Your task to perform on an android device: Open calendar and show me the fourth week of next month Image 0: 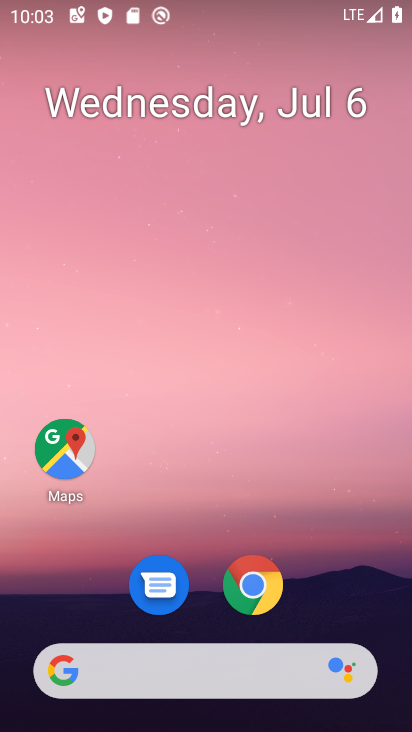
Step 0: drag from (232, 507) to (244, 19)
Your task to perform on an android device: Open calendar and show me the fourth week of next month Image 1: 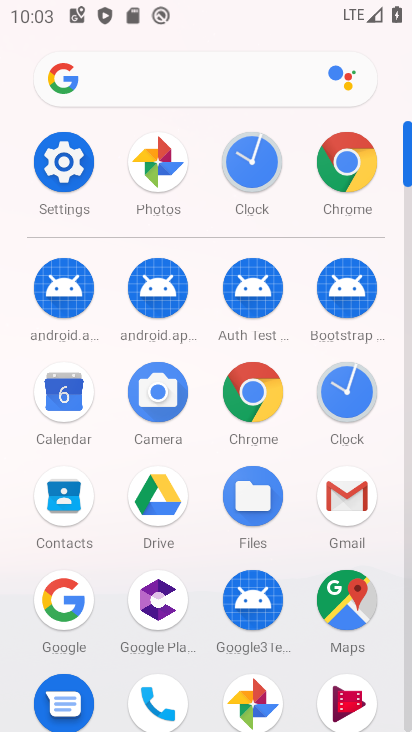
Step 1: click (61, 402)
Your task to perform on an android device: Open calendar and show me the fourth week of next month Image 2: 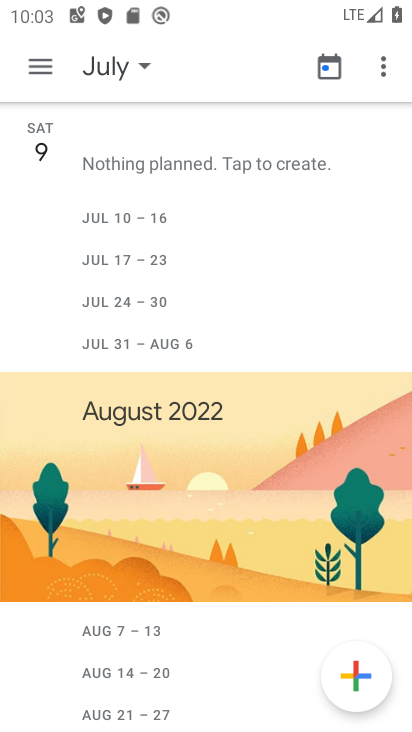
Step 2: click (45, 70)
Your task to perform on an android device: Open calendar and show me the fourth week of next month Image 3: 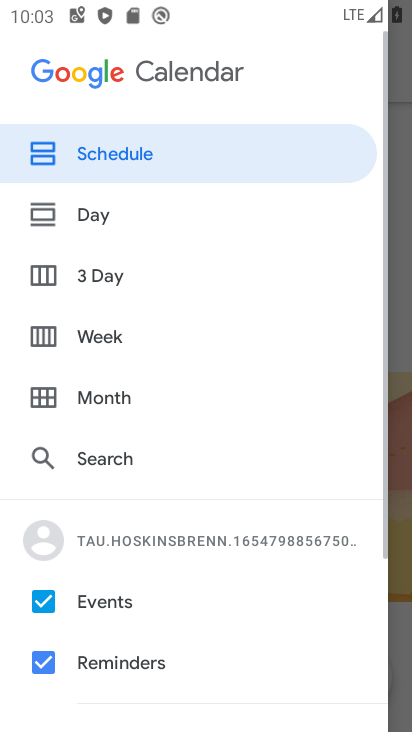
Step 3: click (94, 401)
Your task to perform on an android device: Open calendar and show me the fourth week of next month Image 4: 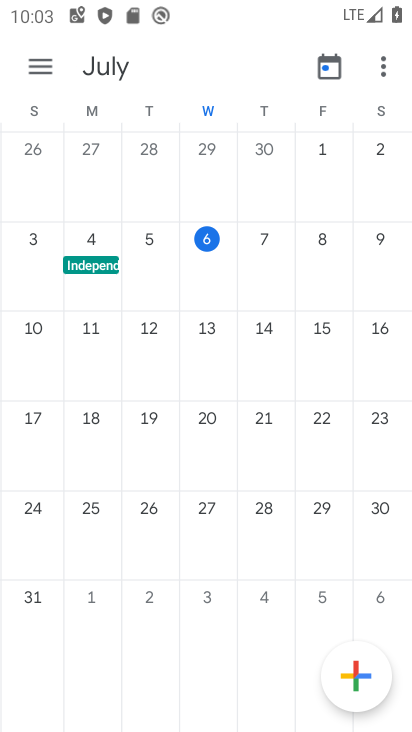
Step 4: drag from (313, 410) to (1, 331)
Your task to perform on an android device: Open calendar and show me the fourth week of next month Image 5: 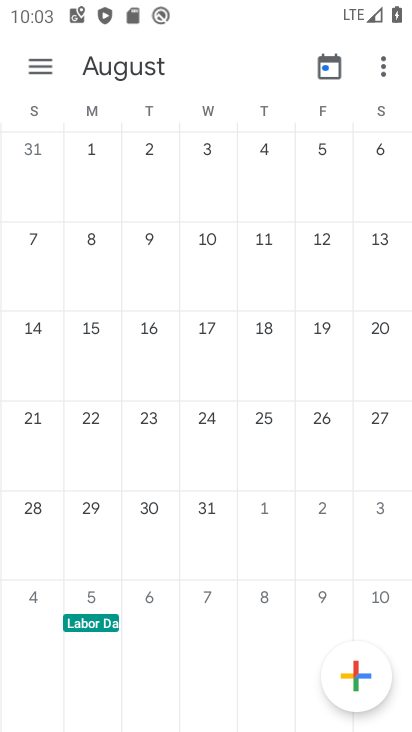
Step 5: click (35, 513)
Your task to perform on an android device: Open calendar and show me the fourth week of next month Image 6: 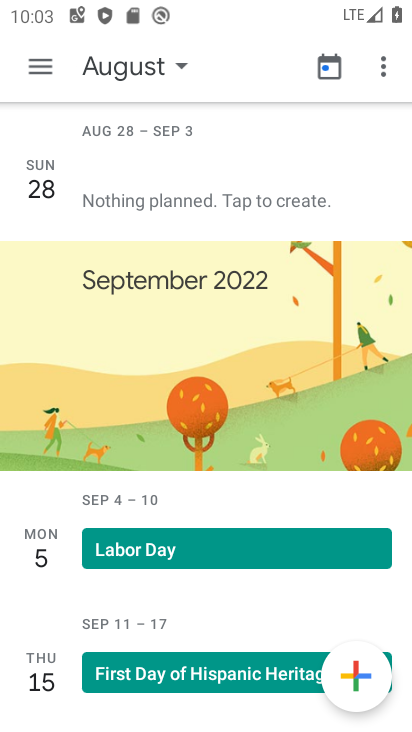
Step 6: click (39, 65)
Your task to perform on an android device: Open calendar and show me the fourth week of next month Image 7: 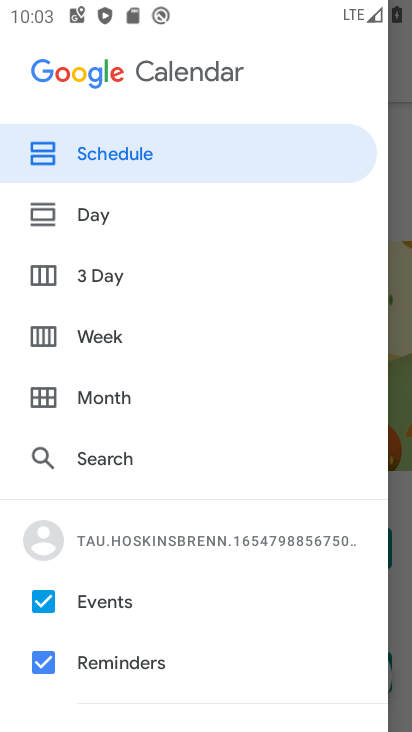
Step 7: click (33, 335)
Your task to perform on an android device: Open calendar and show me the fourth week of next month Image 8: 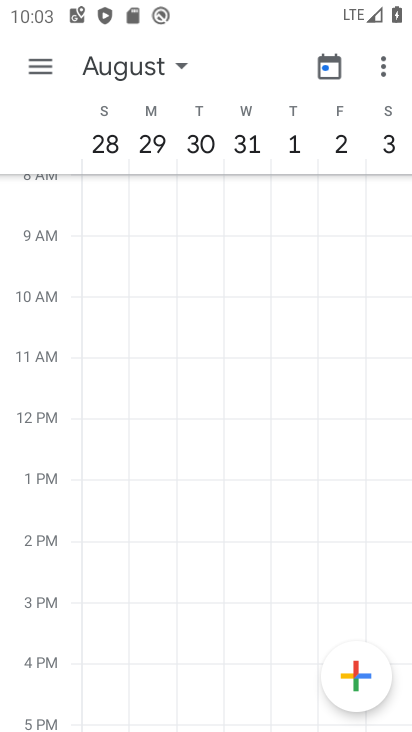
Step 8: task complete